Your task to perform on an android device: change alarm snooze length Image 0: 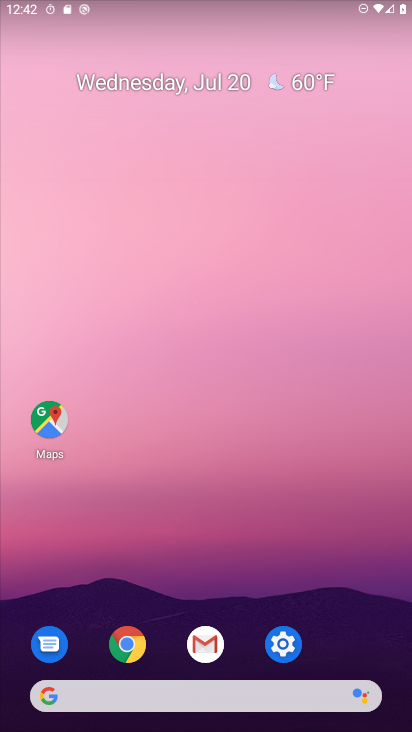
Step 0: drag from (286, 715) to (235, 158)
Your task to perform on an android device: change alarm snooze length Image 1: 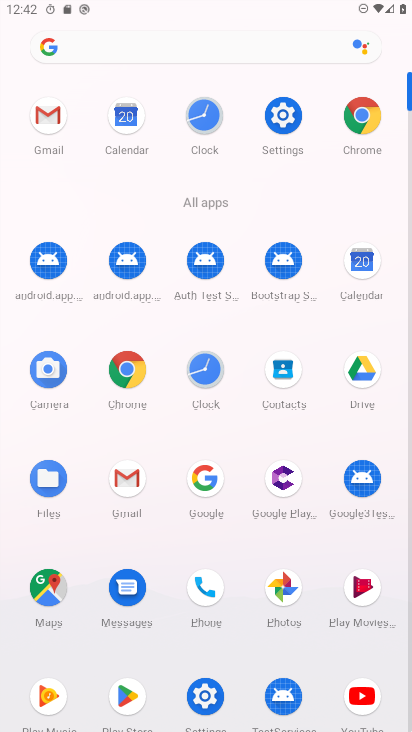
Step 1: click (197, 393)
Your task to perform on an android device: change alarm snooze length Image 2: 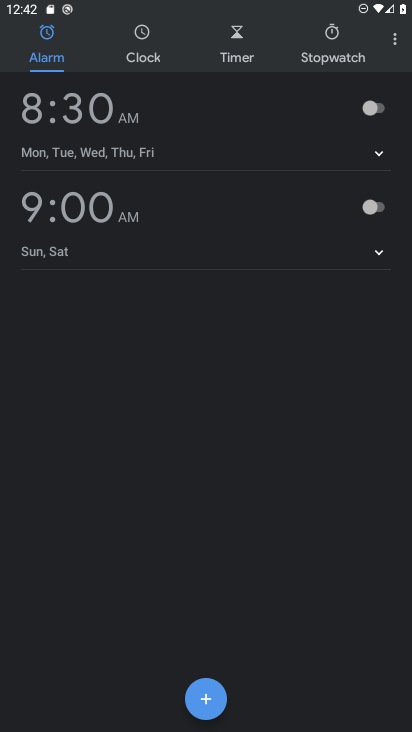
Step 2: click (396, 50)
Your task to perform on an android device: change alarm snooze length Image 3: 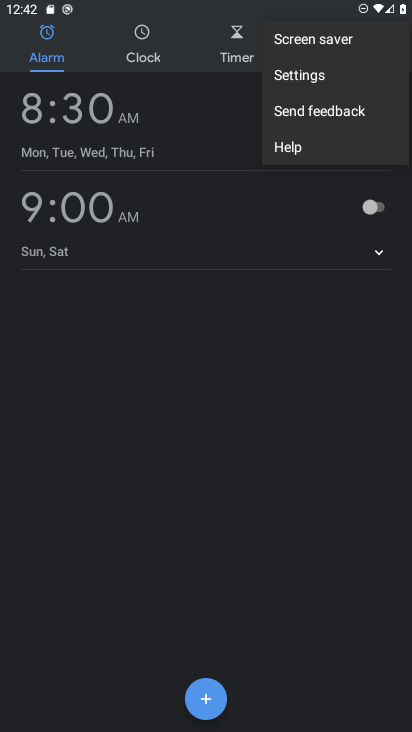
Step 3: click (326, 79)
Your task to perform on an android device: change alarm snooze length Image 4: 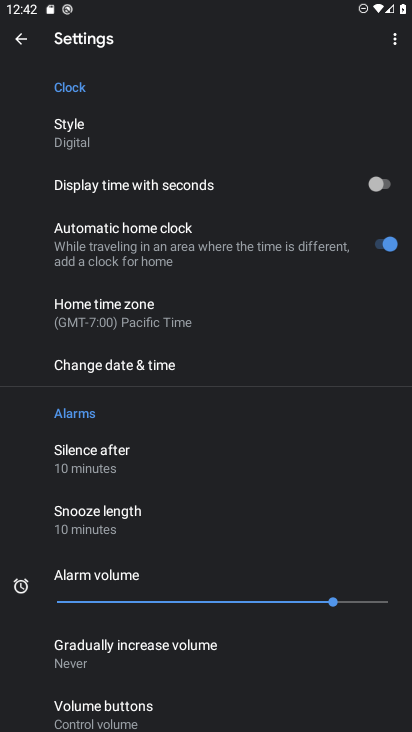
Step 4: drag from (165, 652) to (210, 527)
Your task to perform on an android device: change alarm snooze length Image 5: 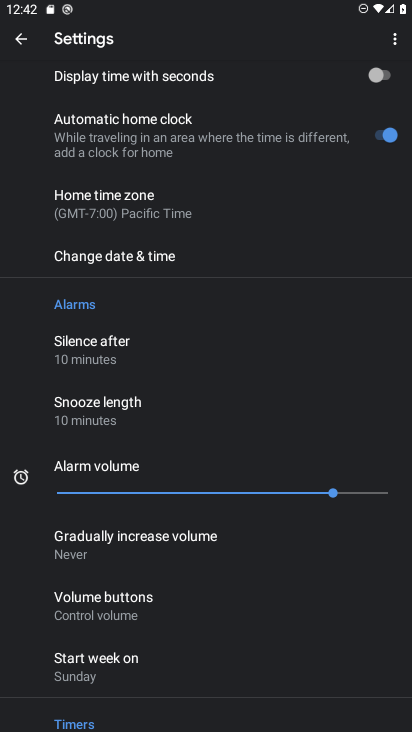
Step 5: click (133, 410)
Your task to perform on an android device: change alarm snooze length Image 6: 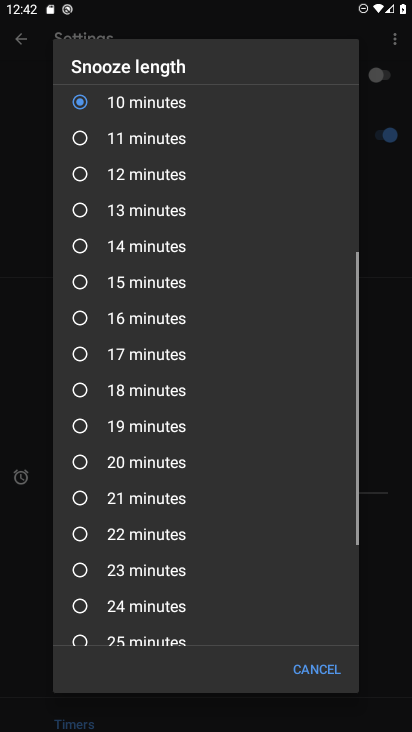
Step 6: click (136, 400)
Your task to perform on an android device: change alarm snooze length Image 7: 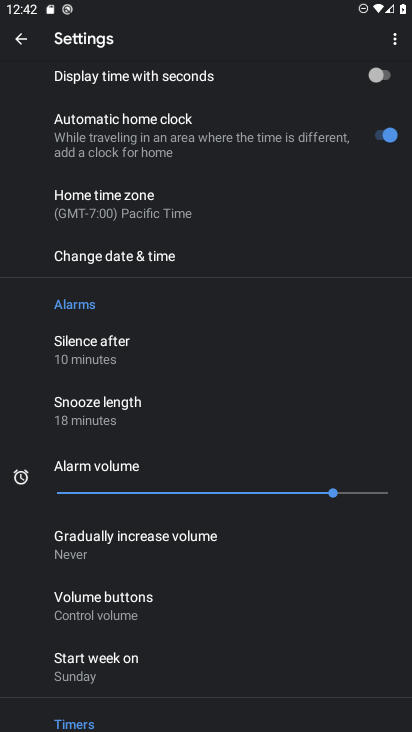
Step 7: task complete